Your task to perform on an android device: turn notification dots on Image 0: 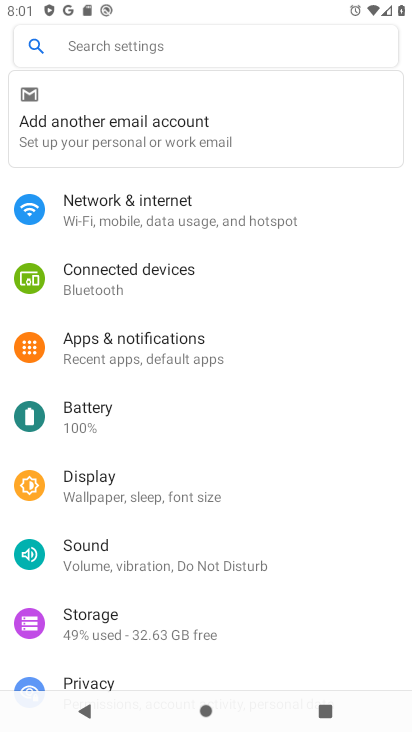
Step 0: press home button
Your task to perform on an android device: turn notification dots on Image 1: 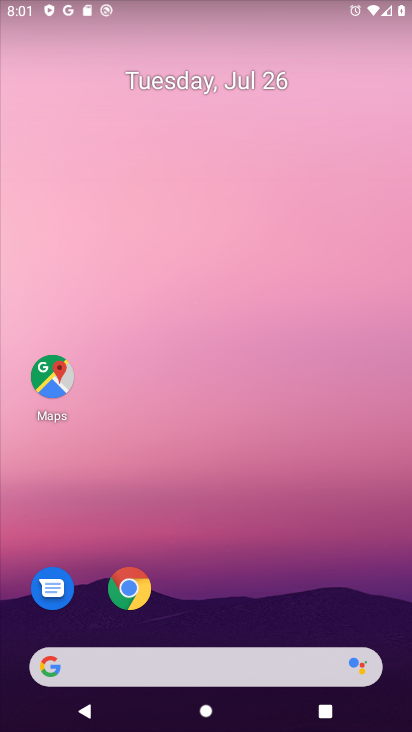
Step 1: drag from (233, 618) to (238, 127)
Your task to perform on an android device: turn notification dots on Image 2: 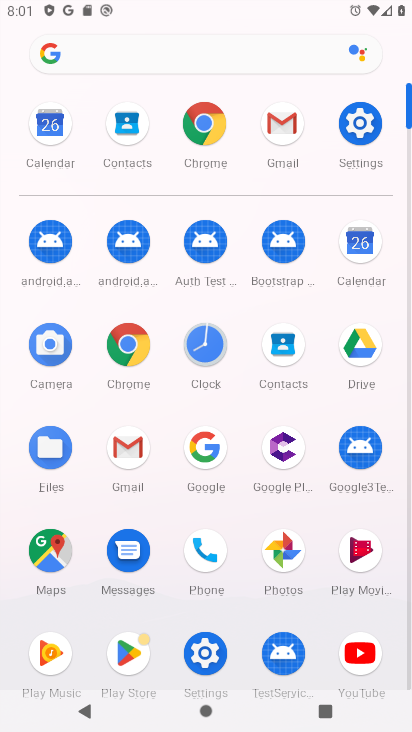
Step 2: click (368, 117)
Your task to perform on an android device: turn notification dots on Image 3: 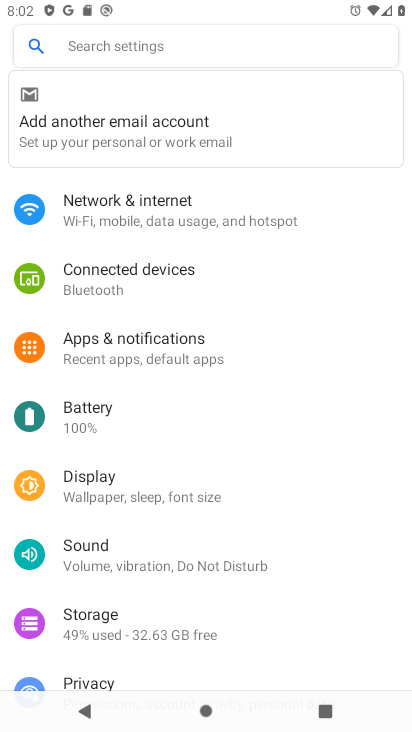
Step 3: click (149, 354)
Your task to perform on an android device: turn notification dots on Image 4: 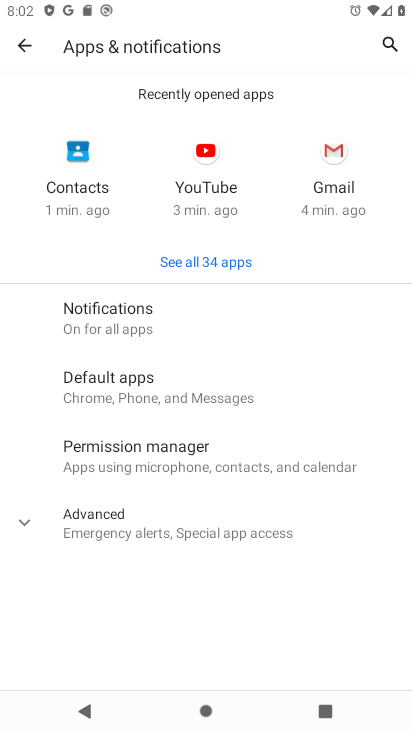
Step 4: click (168, 319)
Your task to perform on an android device: turn notification dots on Image 5: 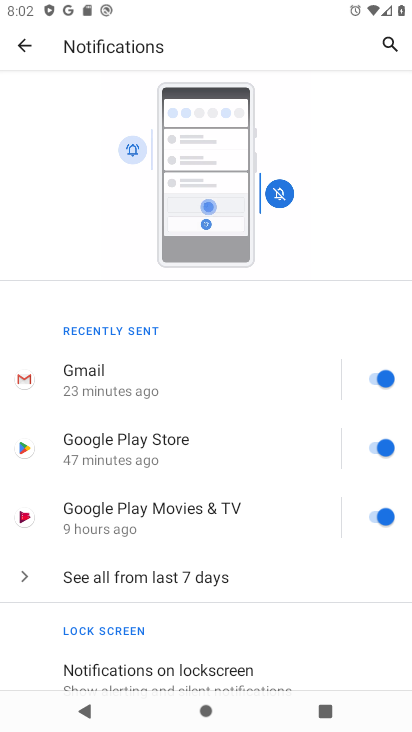
Step 5: drag from (141, 601) to (198, 207)
Your task to perform on an android device: turn notification dots on Image 6: 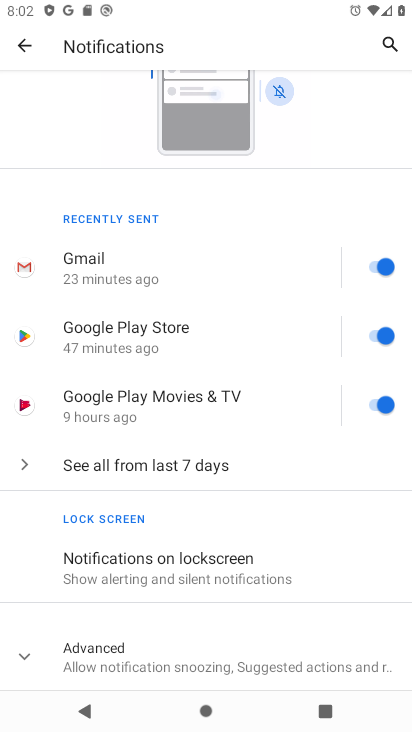
Step 6: click (186, 659)
Your task to perform on an android device: turn notification dots on Image 7: 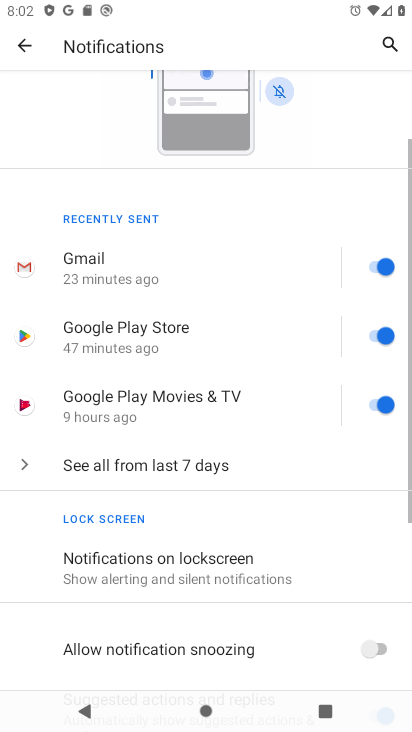
Step 7: task complete